Your task to perform on an android device: add a contact in the contacts app Image 0: 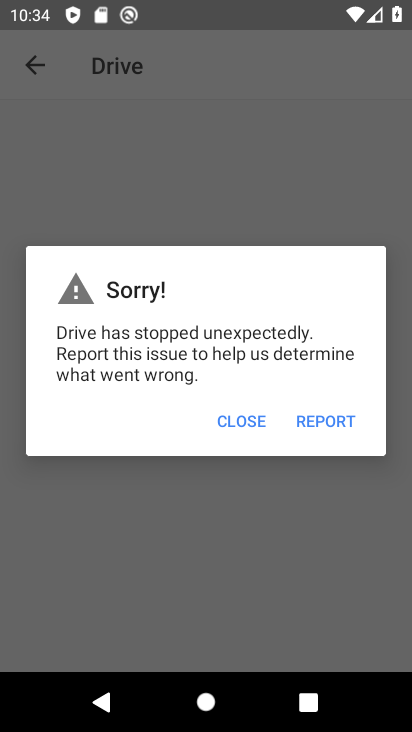
Step 0: press home button
Your task to perform on an android device: add a contact in the contacts app Image 1: 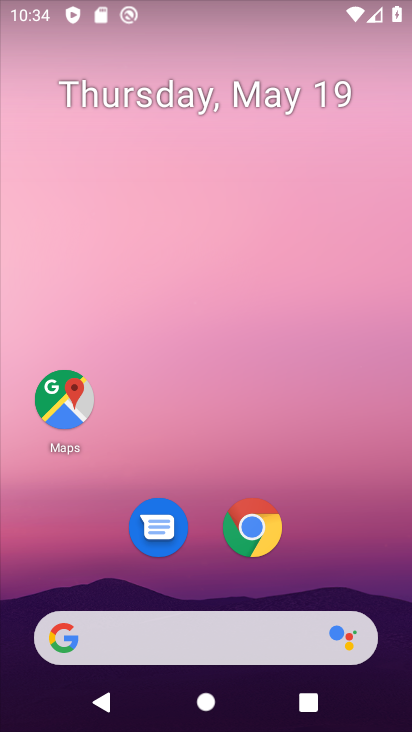
Step 1: drag from (218, 567) to (246, 84)
Your task to perform on an android device: add a contact in the contacts app Image 2: 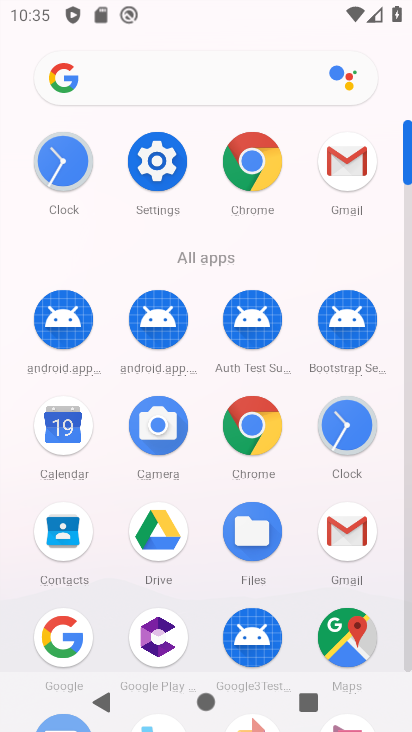
Step 2: drag from (296, 502) to (316, 352)
Your task to perform on an android device: add a contact in the contacts app Image 3: 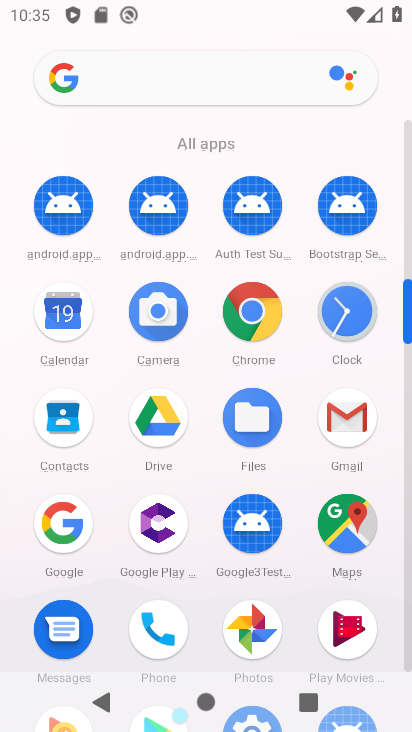
Step 3: click (65, 424)
Your task to perform on an android device: add a contact in the contacts app Image 4: 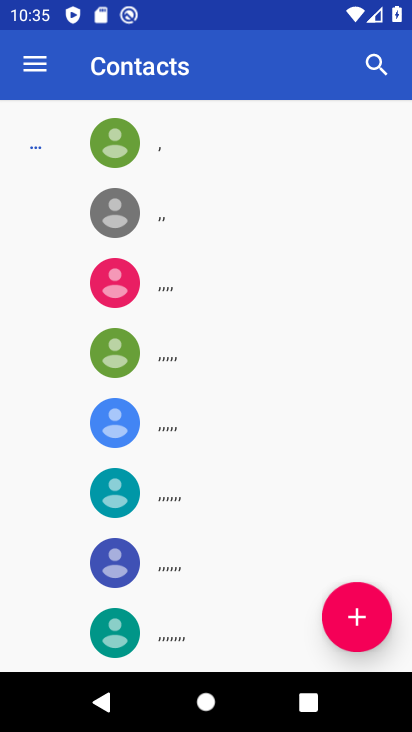
Step 4: click (359, 616)
Your task to perform on an android device: add a contact in the contacts app Image 5: 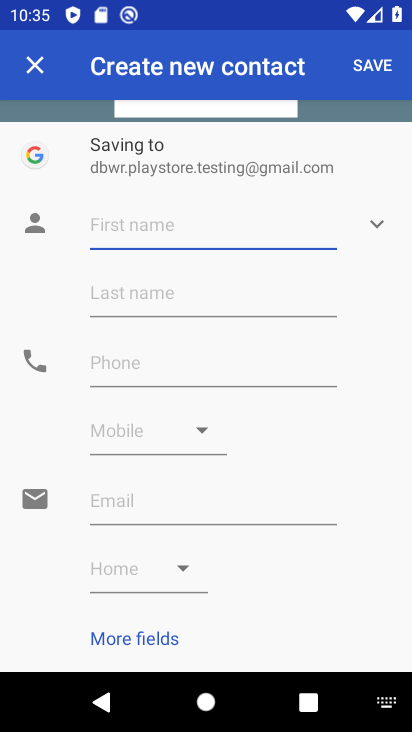
Step 5: type "derren"
Your task to perform on an android device: add a contact in the contacts app Image 6: 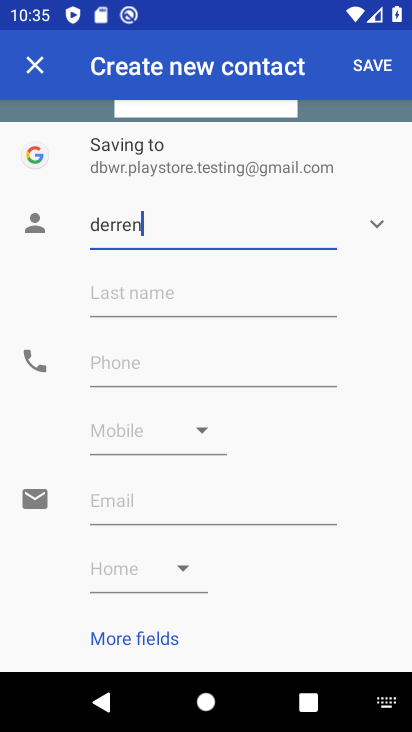
Step 6: click (363, 60)
Your task to perform on an android device: add a contact in the contacts app Image 7: 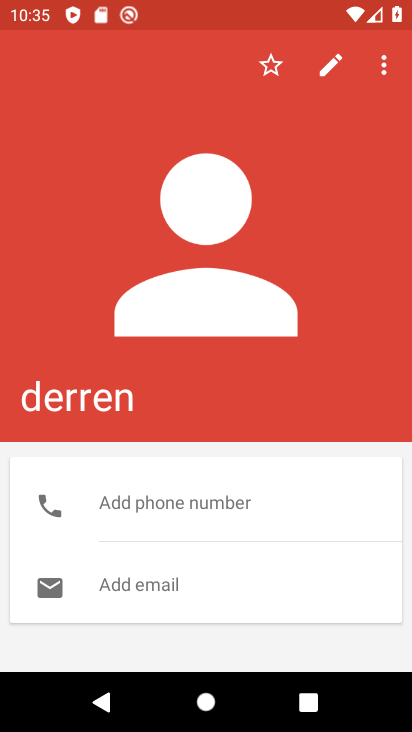
Step 7: task complete